Your task to perform on an android device: Open CNN.com Image 0: 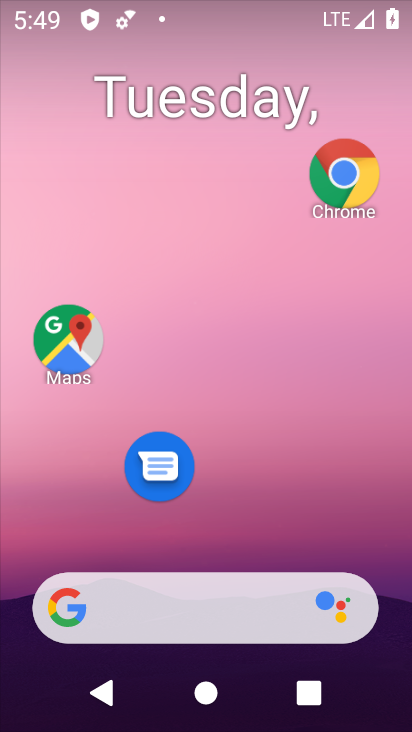
Step 0: press home button
Your task to perform on an android device: Open CNN.com Image 1: 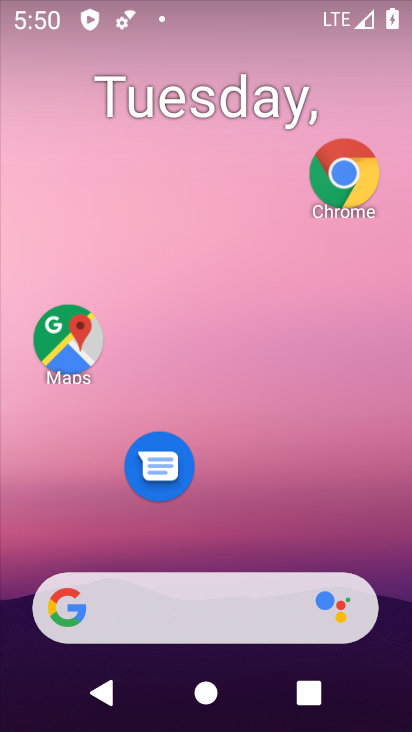
Step 1: click (344, 188)
Your task to perform on an android device: Open CNN.com Image 2: 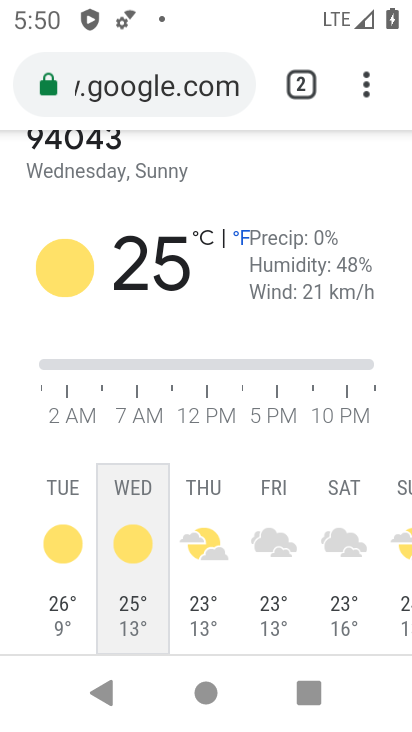
Step 2: click (206, 75)
Your task to perform on an android device: Open CNN.com Image 3: 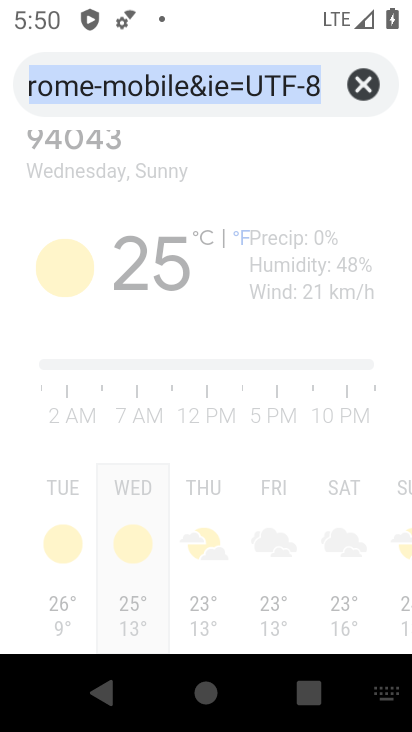
Step 3: click (371, 75)
Your task to perform on an android device: Open CNN.com Image 4: 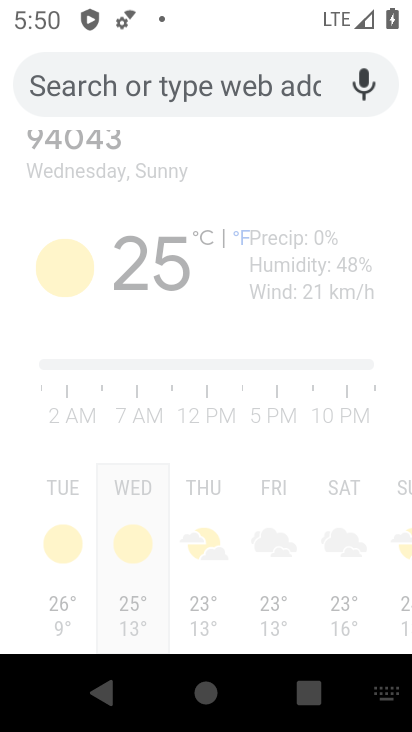
Step 4: click (295, 81)
Your task to perform on an android device: Open CNN.com Image 5: 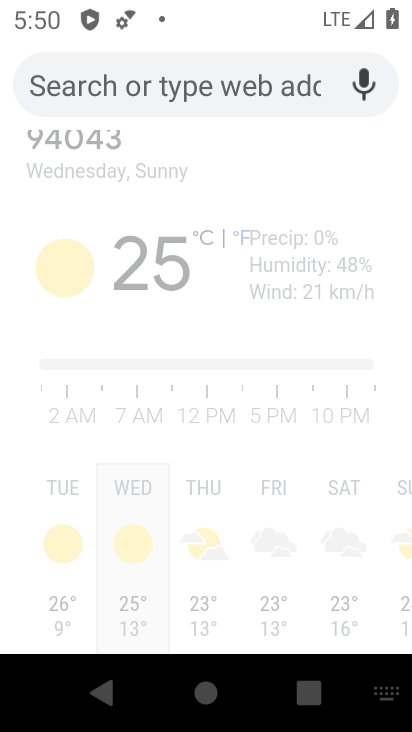
Step 5: click (295, 81)
Your task to perform on an android device: Open CNN.com Image 6: 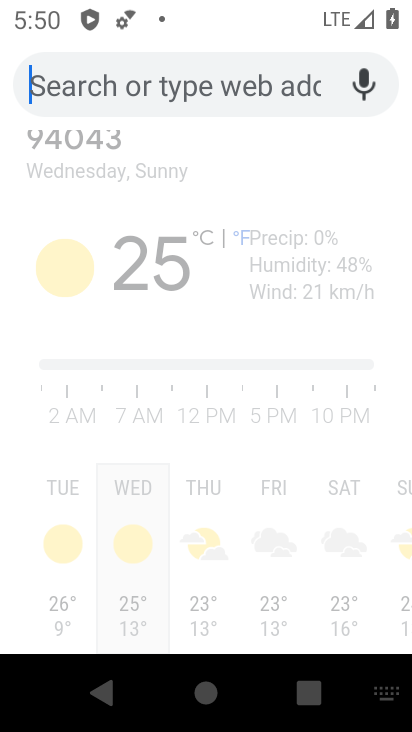
Step 6: click (295, 81)
Your task to perform on an android device: Open CNN.com Image 7: 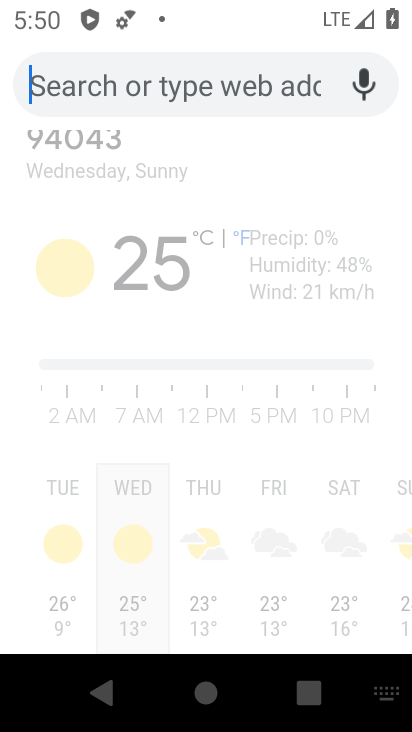
Step 7: click (295, 81)
Your task to perform on an android device: Open CNN.com Image 8: 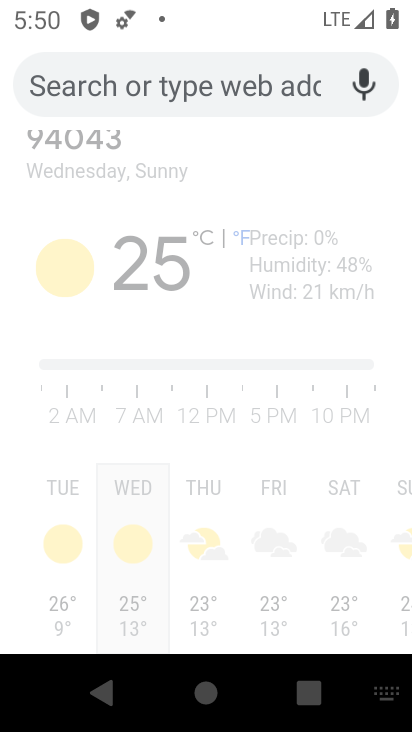
Step 8: click (295, 81)
Your task to perform on an android device: Open CNN.com Image 9: 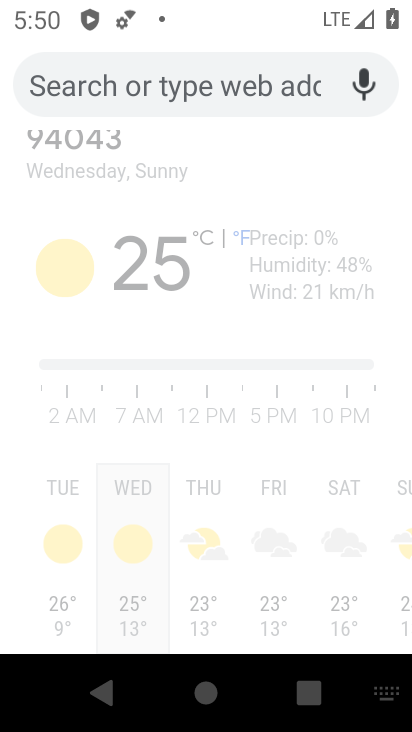
Step 9: click (295, 81)
Your task to perform on an android device: Open CNN.com Image 10: 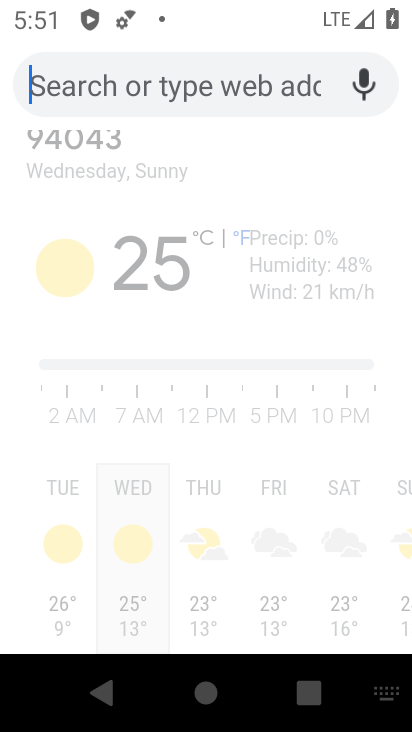
Step 10: type "CCN.com"
Your task to perform on an android device: Open CNN.com Image 11: 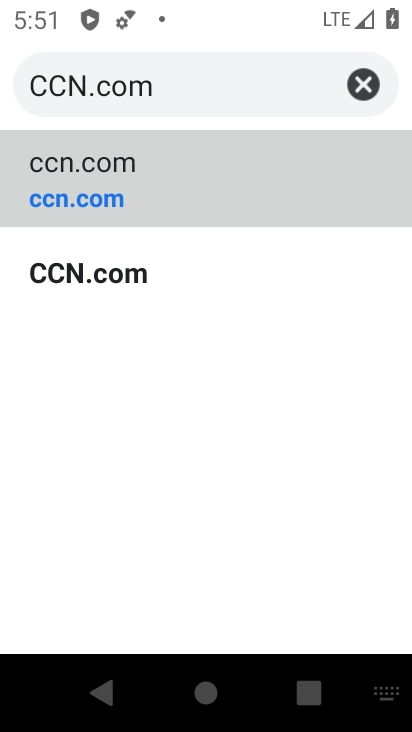
Step 11: click (207, 148)
Your task to perform on an android device: Open CNN.com Image 12: 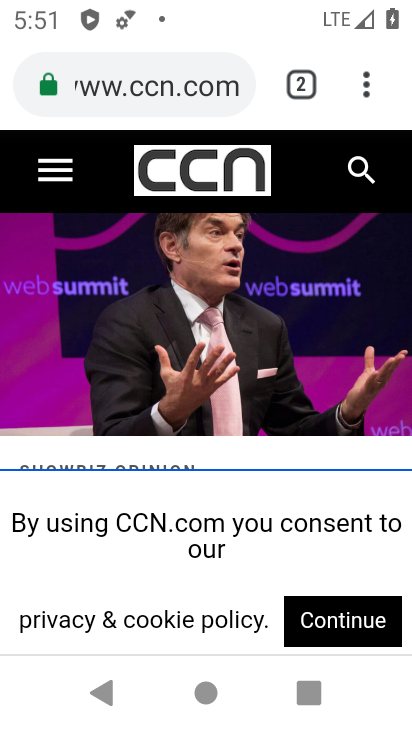
Step 12: task complete